Your task to perform on an android device: open a bookmark in the chrome app Image 0: 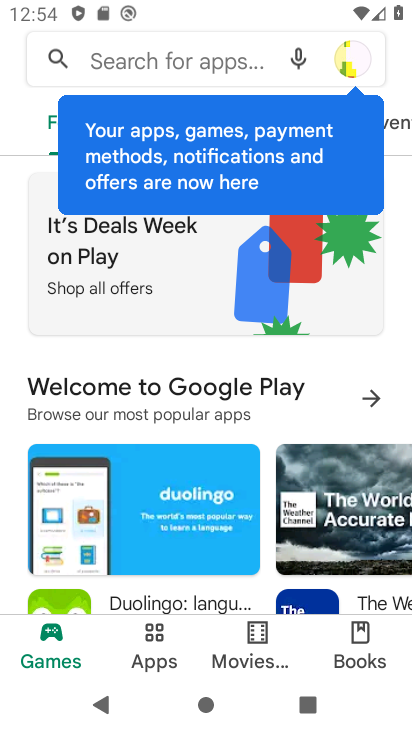
Step 0: press home button
Your task to perform on an android device: open a bookmark in the chrome app Image 1: 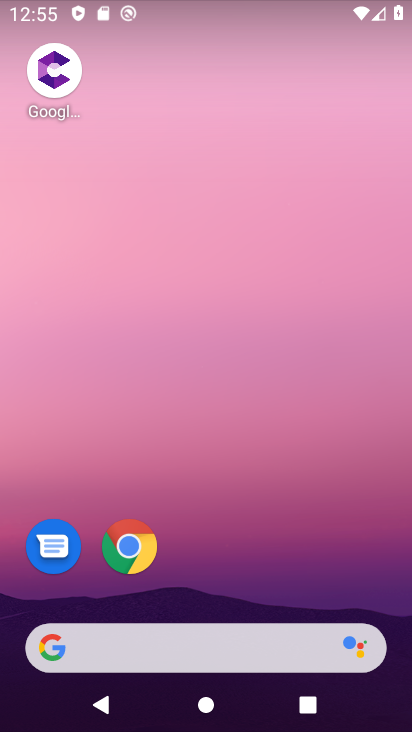
Step 1: click (123, 559)
Your task to perform on an android device: open a bookmark in the chrome app Image 2: 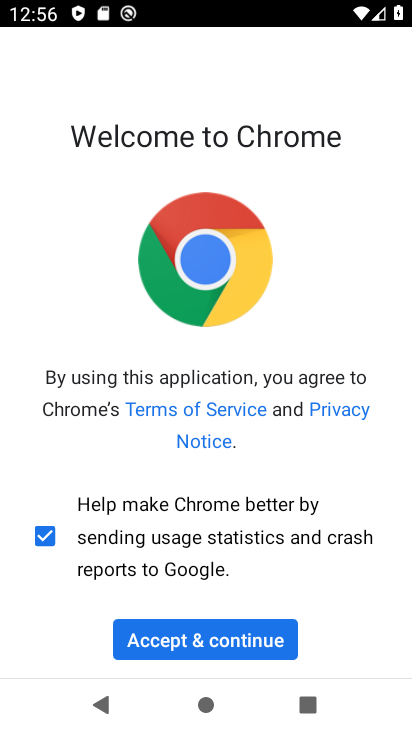
Step 2: click (235, 653)
Your task to perform on an android device: open a bookmark in the chrome app Image 3: 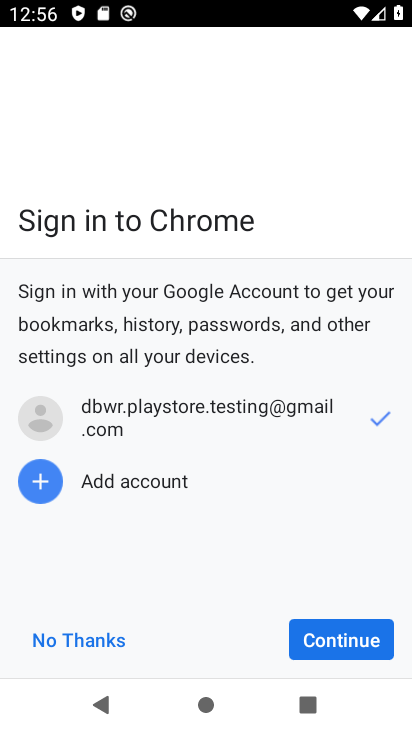
Step 3: click (328, 644)
Your task to perform on an android device: open a bookmark in the chrome app Image 4: 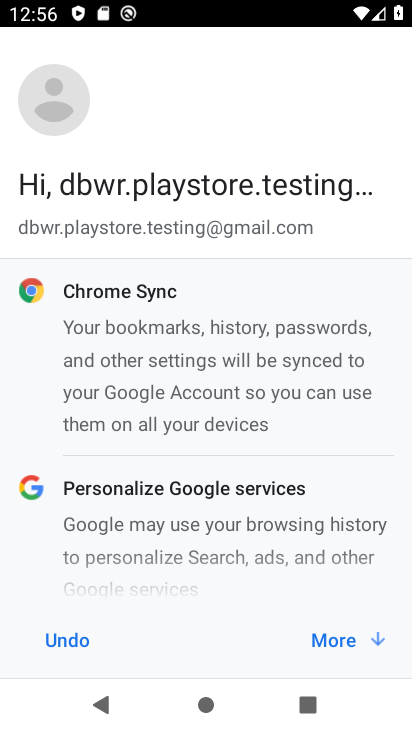
Step 4: click (328, 644)
Your task to perform on an android device: open a bookmark in the chrome app Image 5: 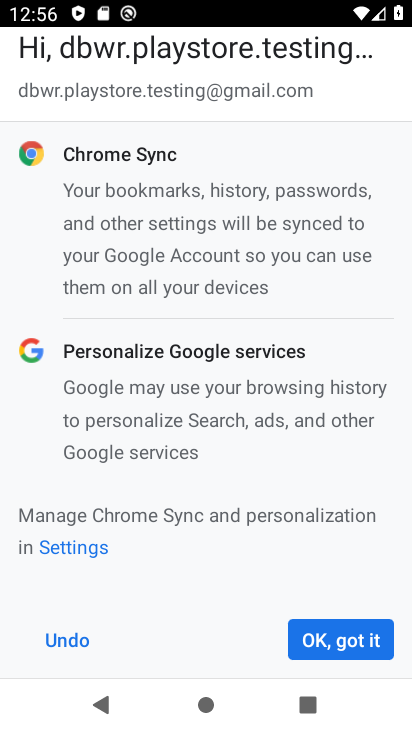
Step 5: click (337, 643)
Your task to perform on an android device: open a bookmark in the chrome app Image 6: 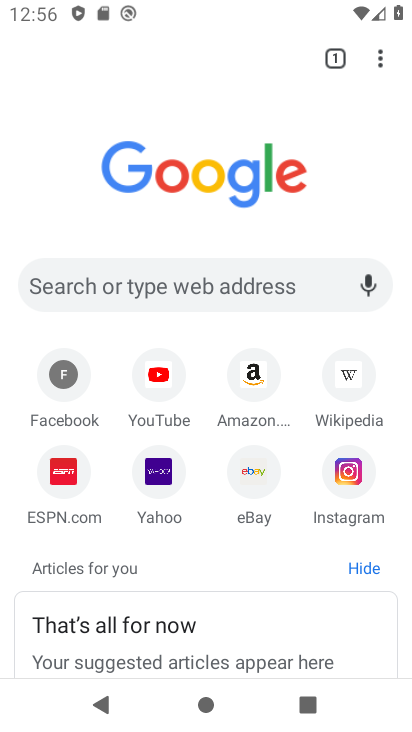
Step 6: task complete